Your task to perform on an android device: Search for "razer blackwidow" on newegg, select the first entry, and add it to the cart. Image 0: 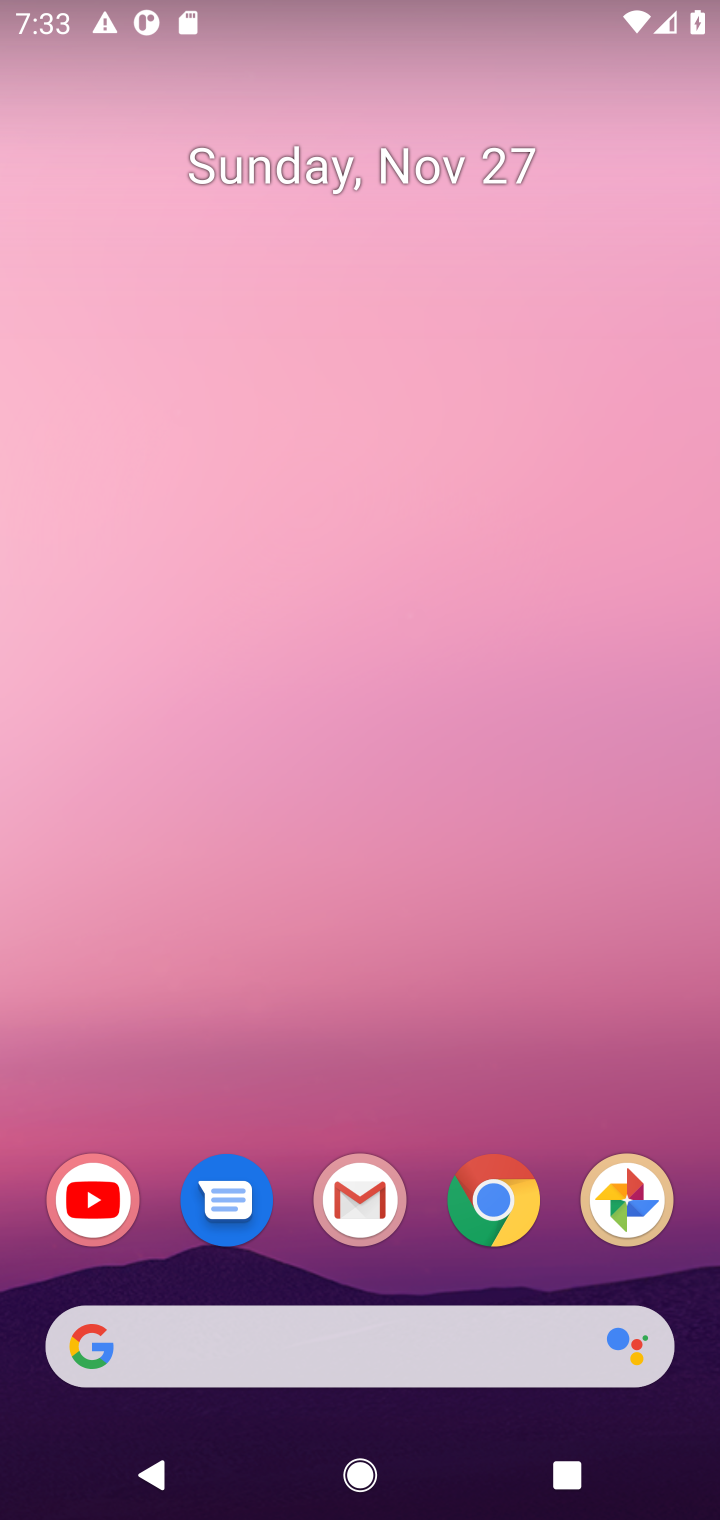
Step 0: click (506, 1203)
Your task to perform on an android device: Search for "razer blackwidow" on newegg, select the first entry, and add it to the cart. Image 1: 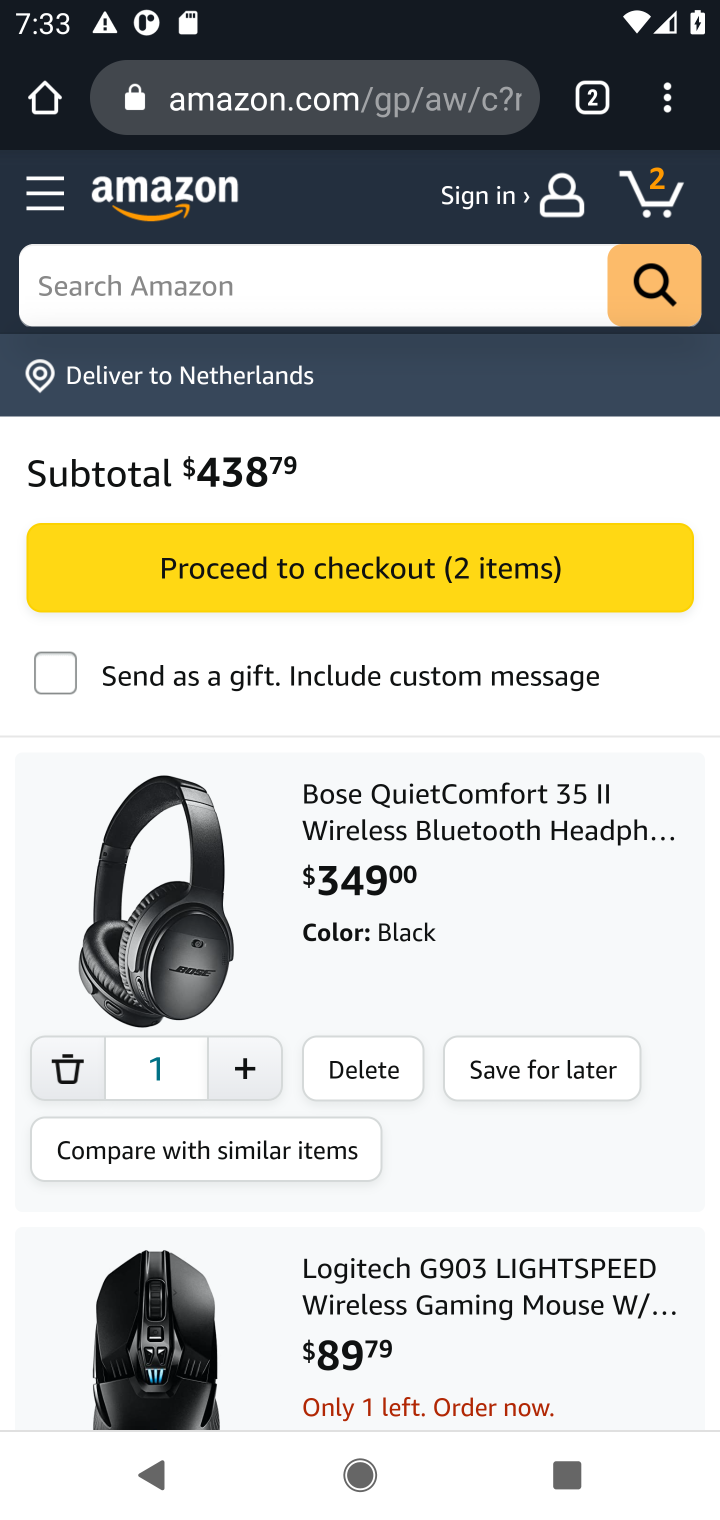
Step 1: click (256, 111)
Your task to perform on an android device: Search for "razer blackwidow" on newegg, select the first entry, and add it to the cart. Image 2: 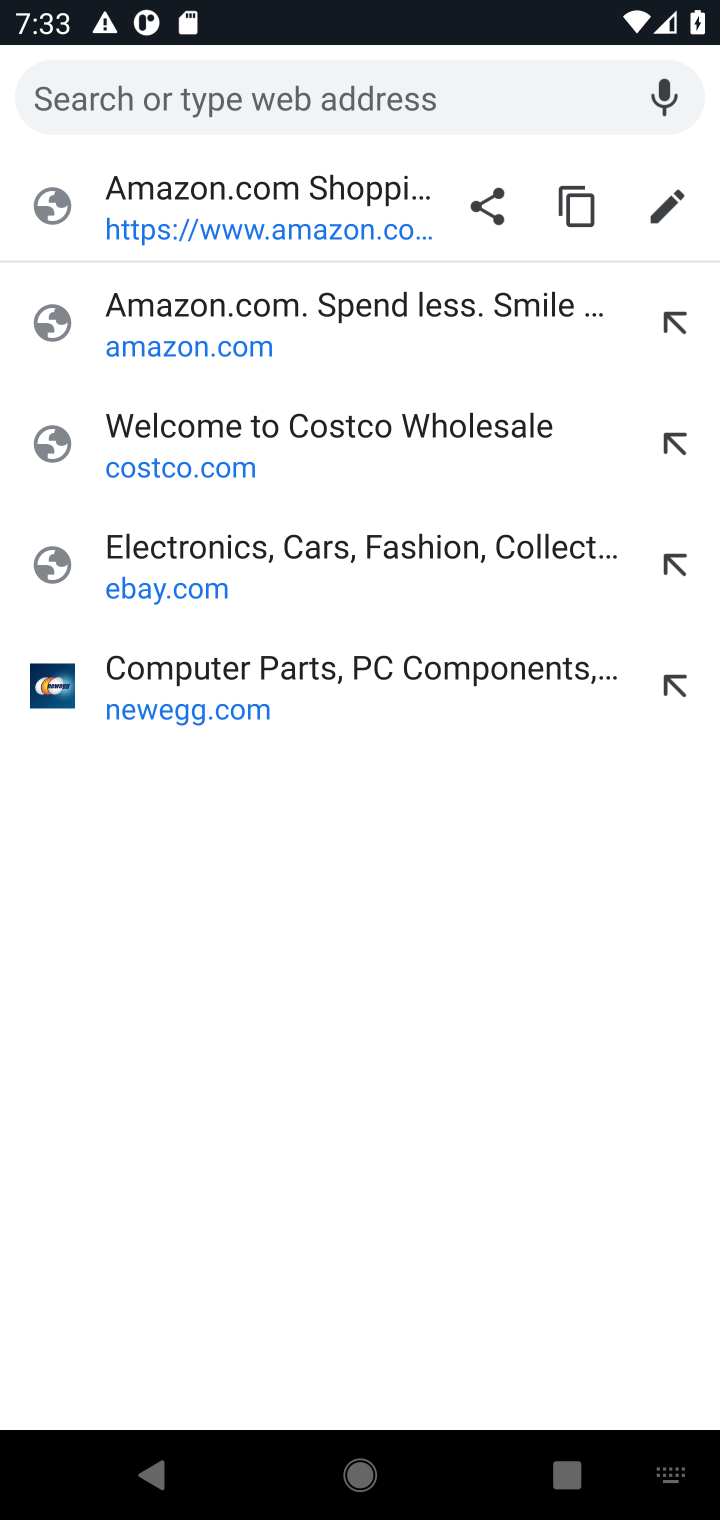
Step 2: click (136, 689)
Your task to perform on an android device: Search for "razer blackwidow" on newegg, select the first entry, and add it to the cart. Image 3: 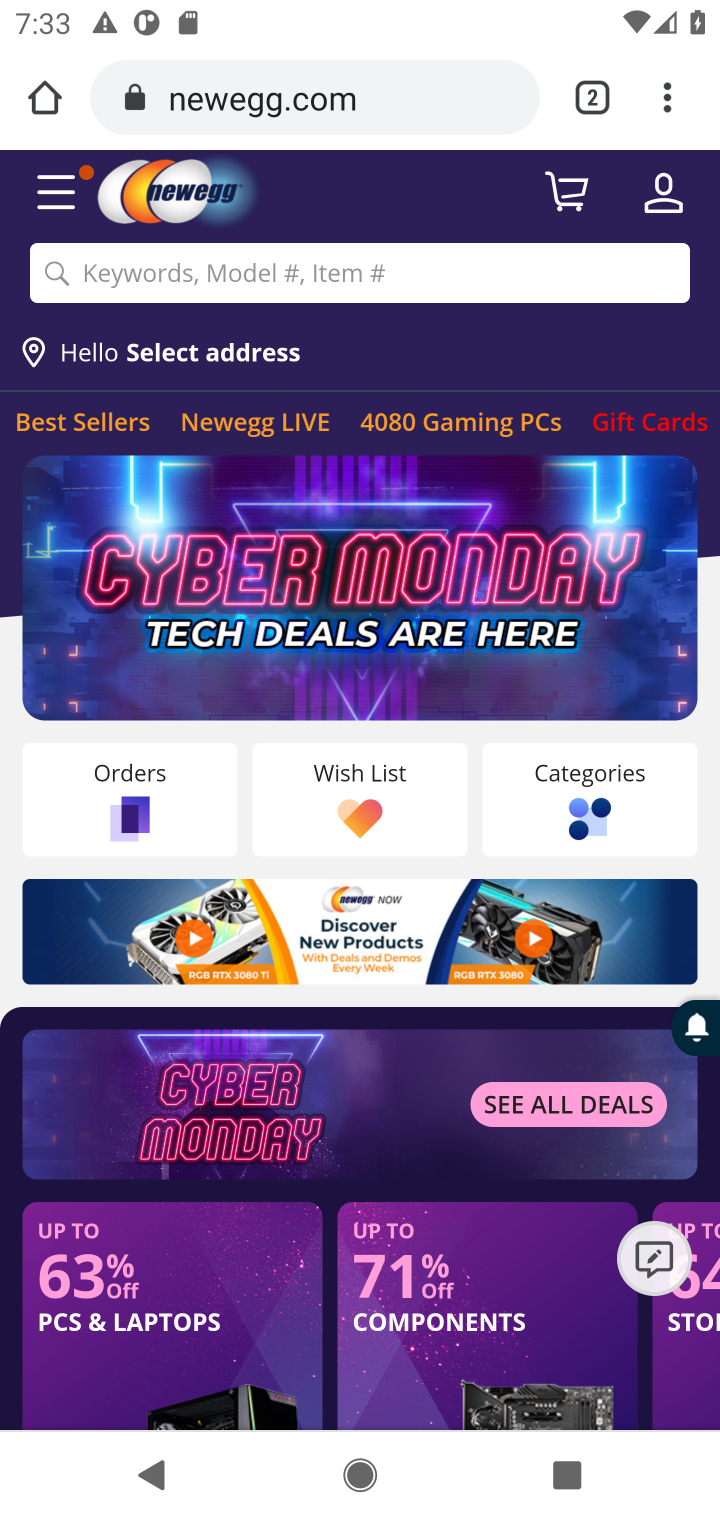
Step 3: click (134, 278)
Your task to perform on an android device: Search for "razer blackwidow" on newegg, select the first entry, and add it to the cart. Image 4: 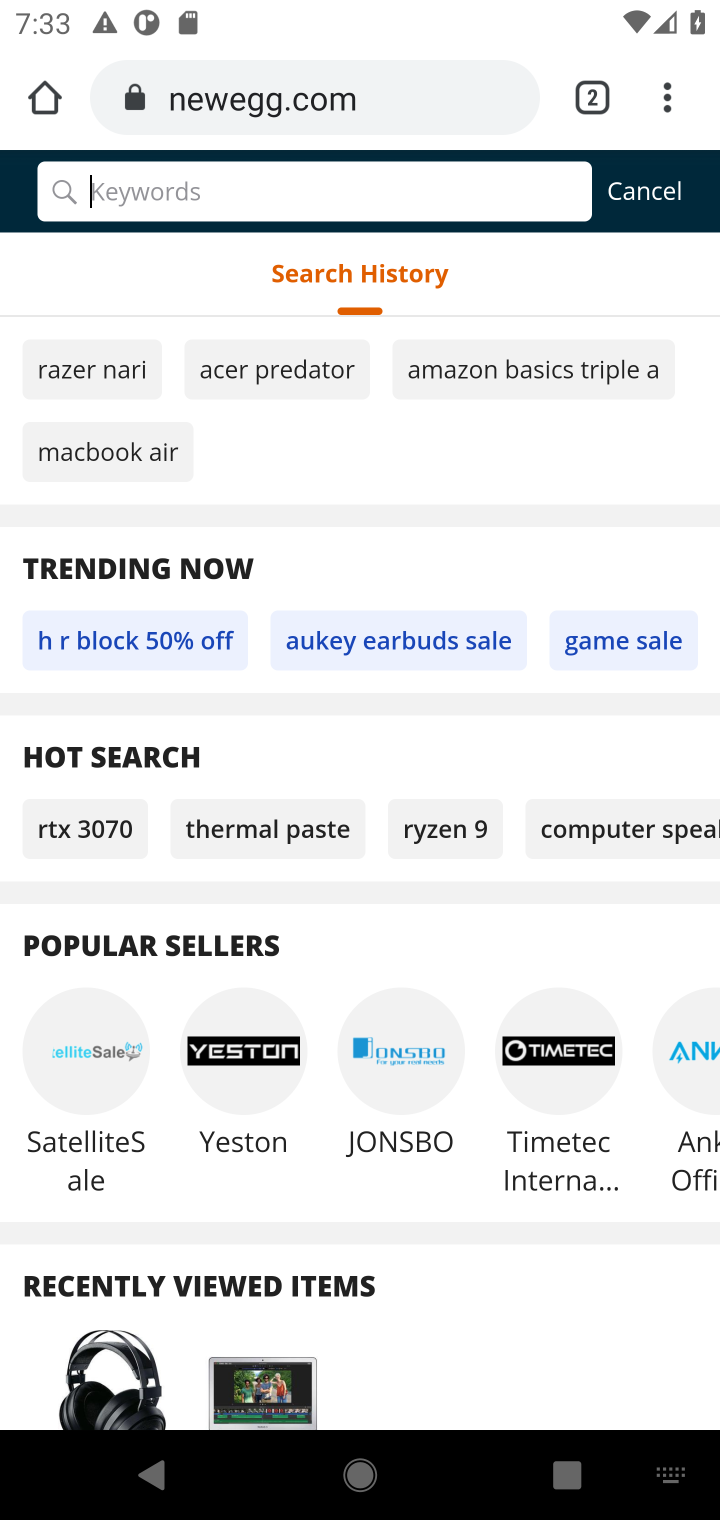
Step 4: type "razer blackwidow"
Your task to perform on an android device: Search for "razer blackwidow" on newegg, select the first entry, and add it to the cart. Image 5: 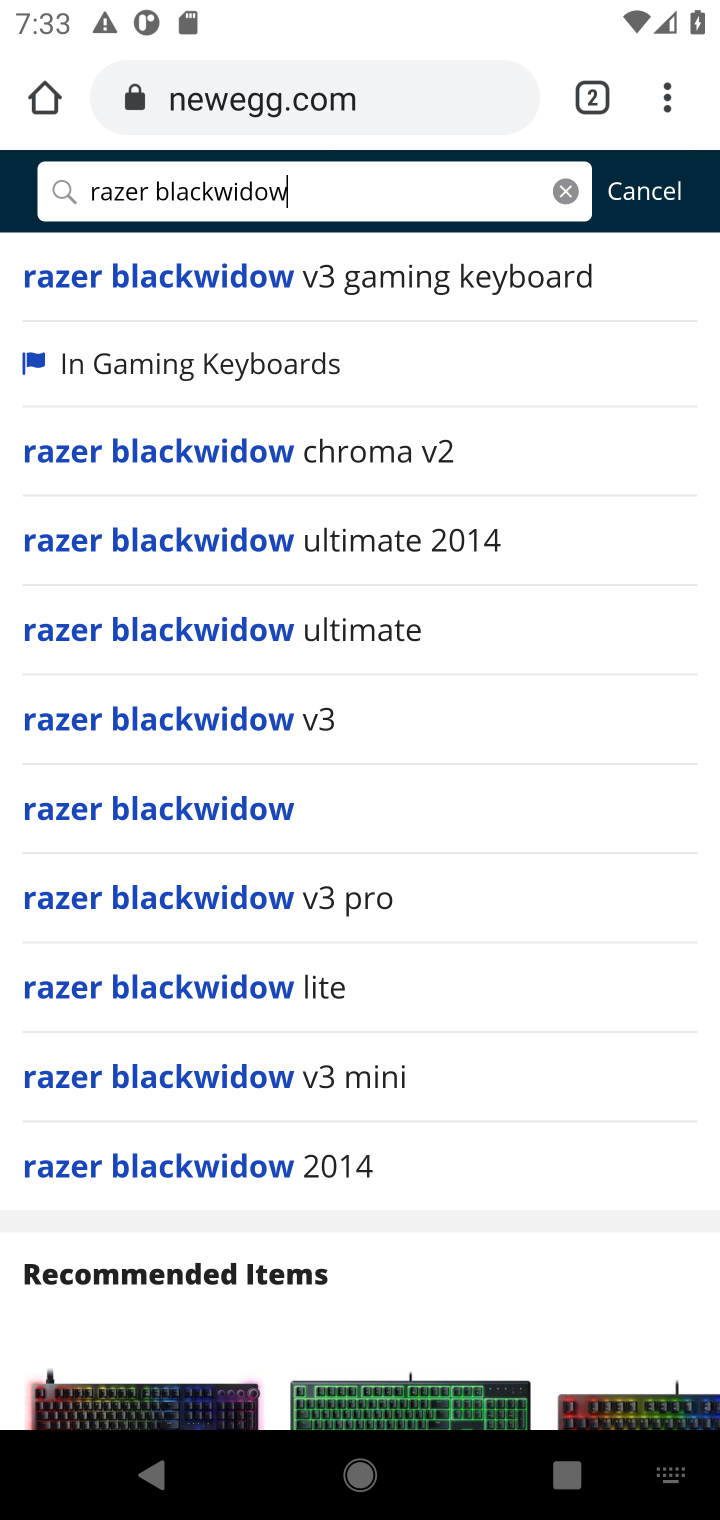
Step 5: click (183, 806)
Your task to perform on an android device: Search for "razer blackwidow" on newegg, select the first entry, and add it to the cart. Image 6: 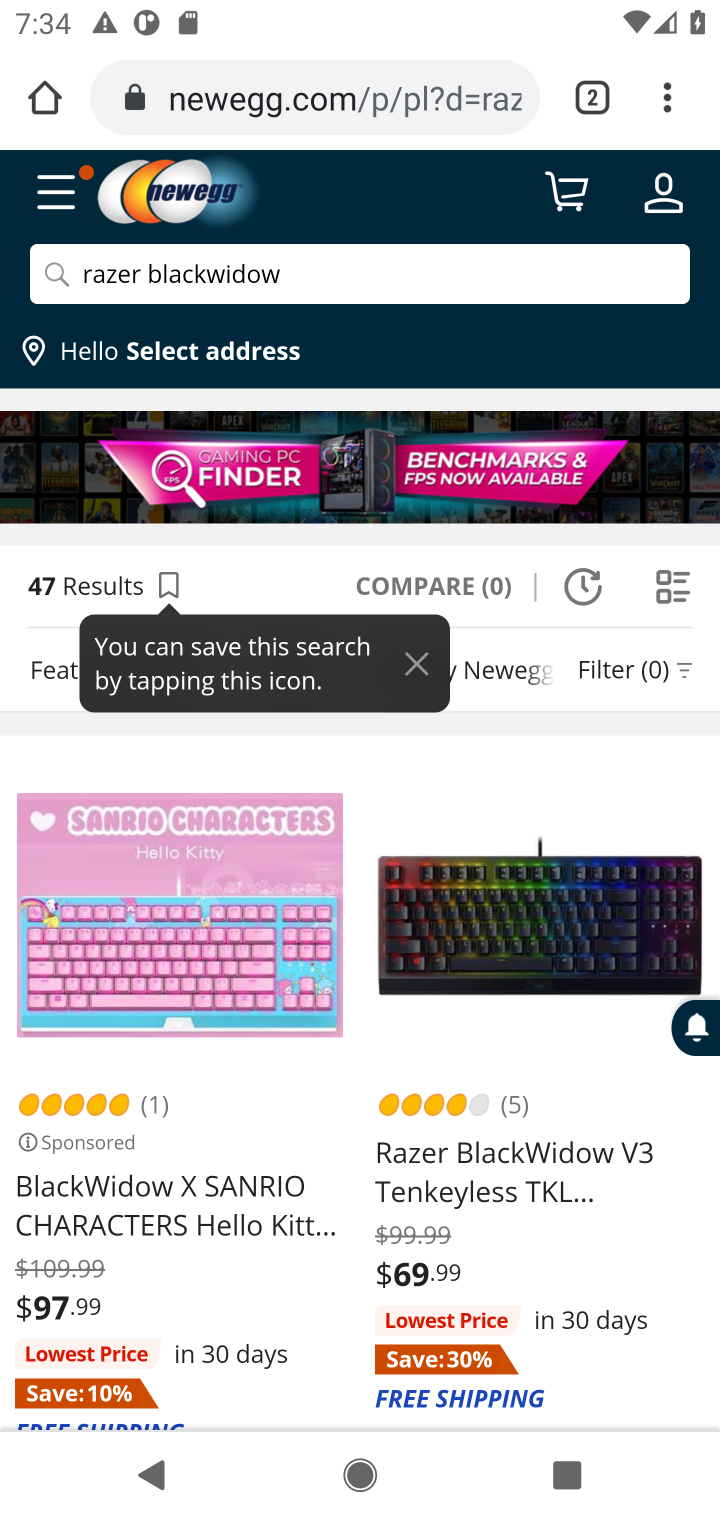
Step 6: click (246, 1004)
Your task to perform on an android device: Search for "razer blackwidow" on newegg, select the first entry, and add it to the cart. Image 7: 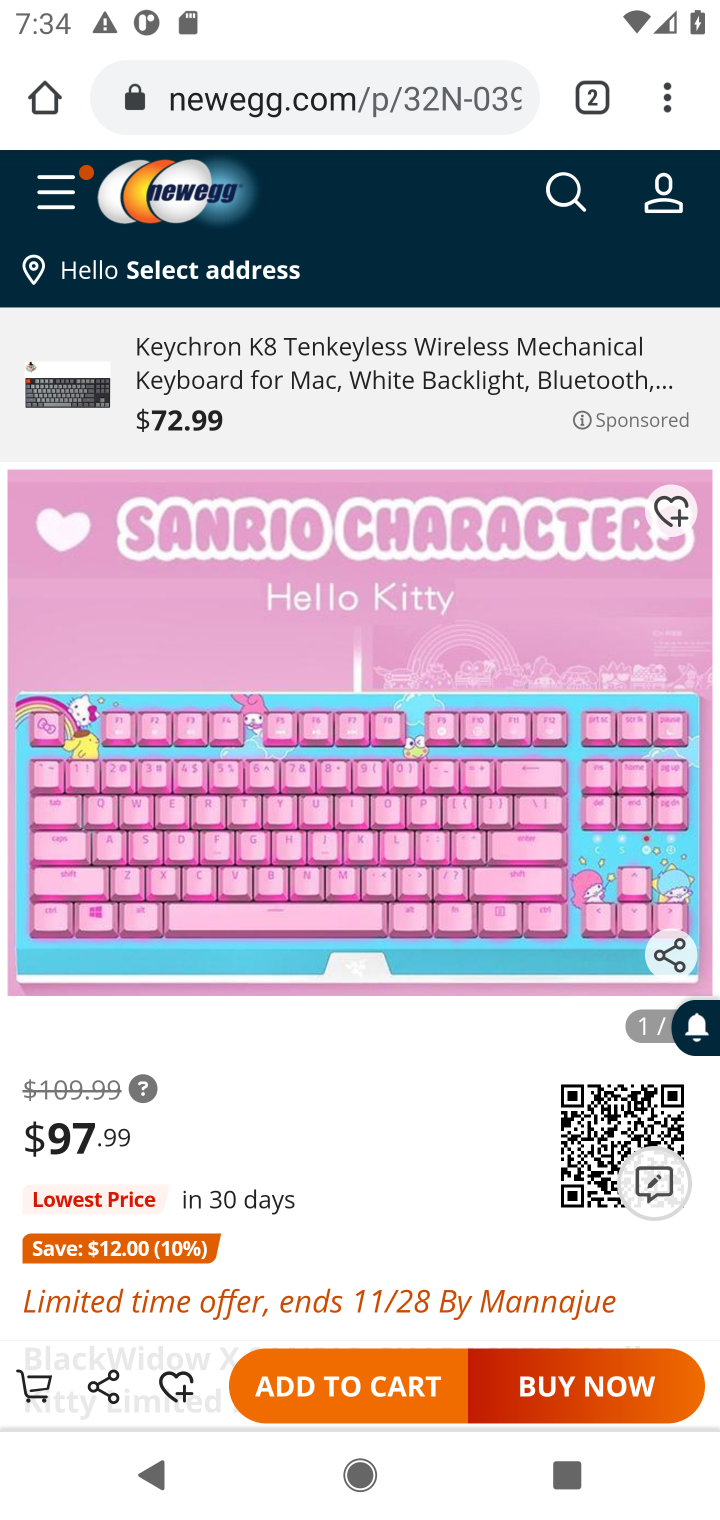
Step 7: drag from (331, 1057) to (330, 1158)
Your task to perform on an android device: Search for "razer blackwidow" on newegg, select the first entry, and add it to the cart. Image 8: 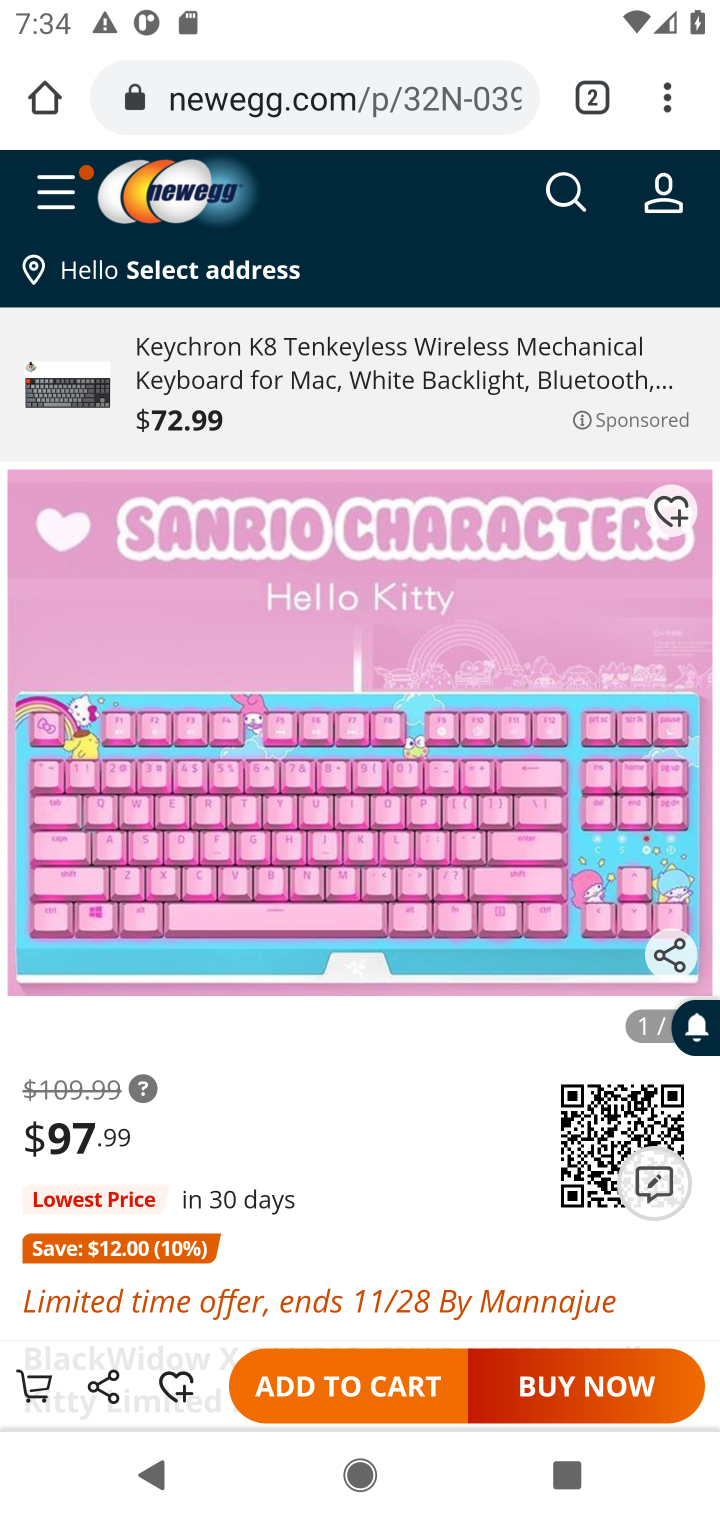
Step 8: drag from (333, 1081) to (318, 708)
Your task to perform on an android device: Search for "razer blackwidow" on newegg, select the first entry, and add it to the cart. Image 9: 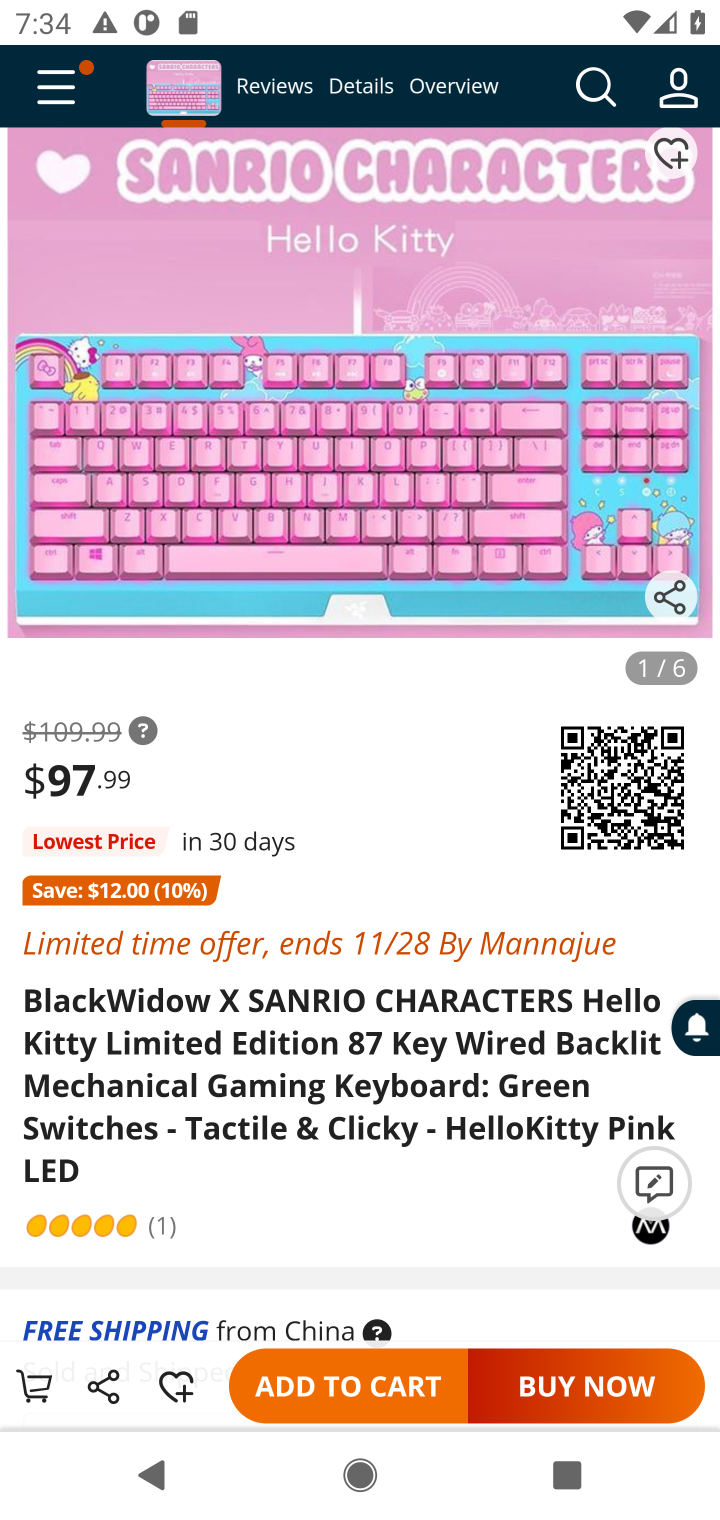
Step 9: click (361, 1385)
Your task to perform on an android device: Search for "razer blackwidow" on newegg, select the first entry, and add it to the cart. Image 10: 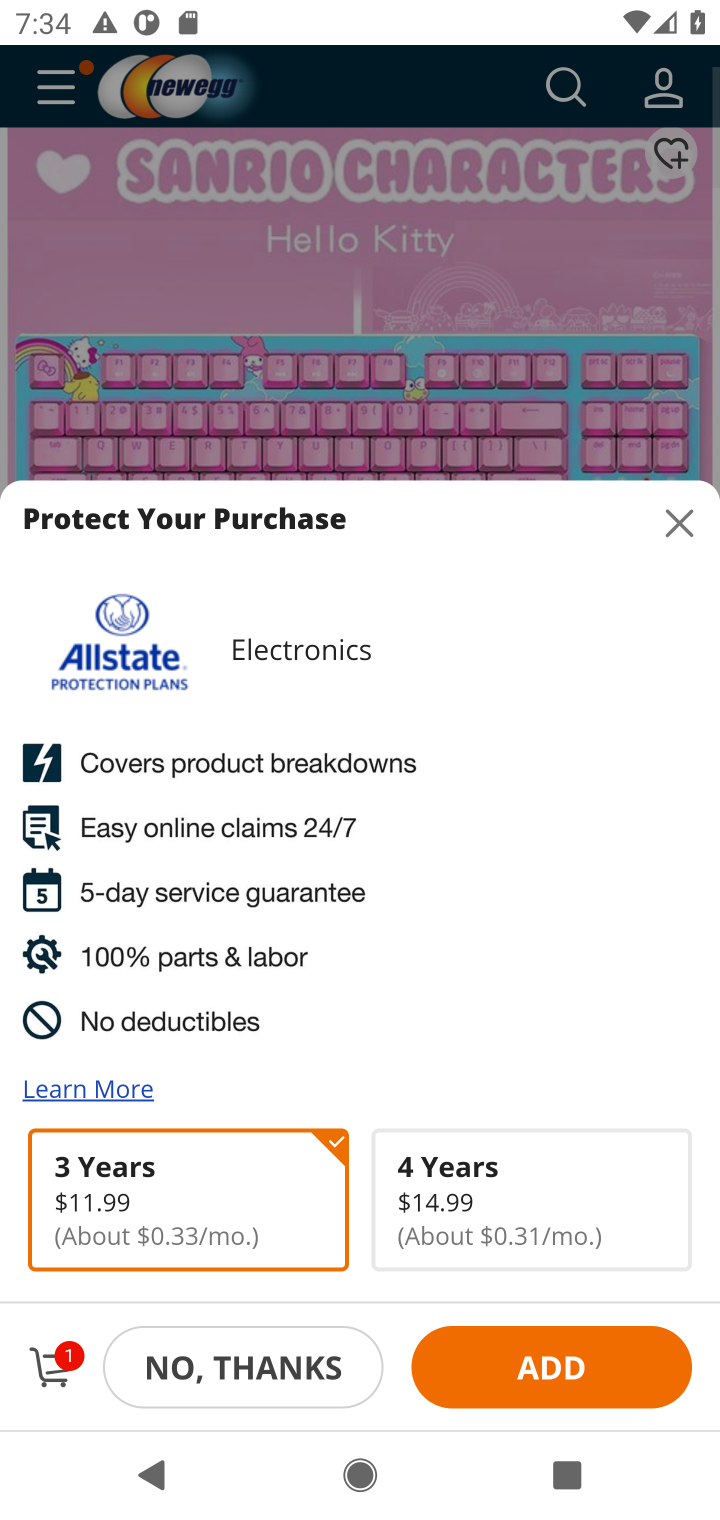
Step 10: task complete